Your task to perform on an android device: turn off location Image 0: 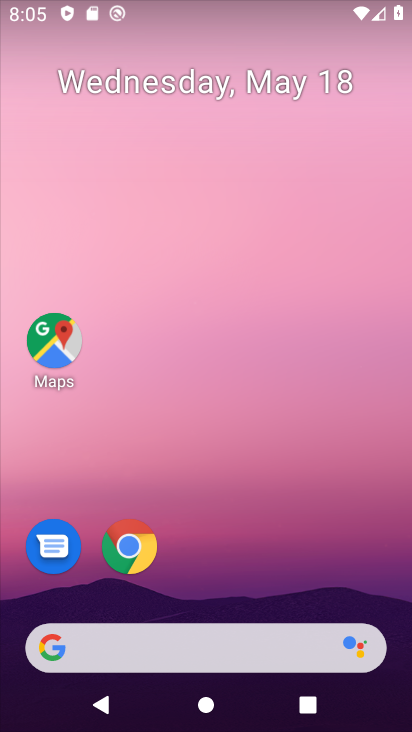
Step 0: drag from (221, 584) to (269, 9)
Your task to perform on an android device: turn off location Image 1: 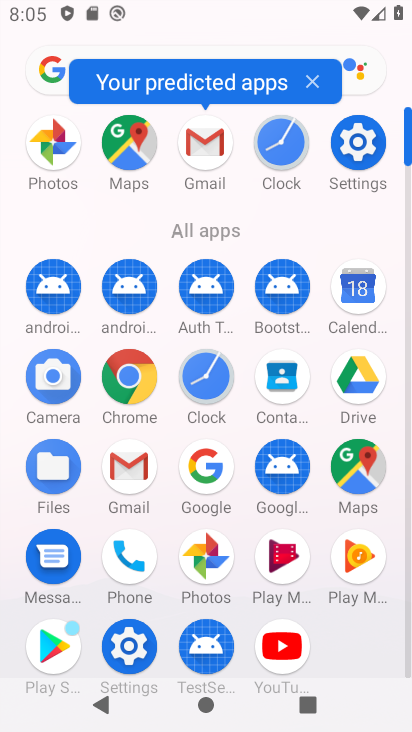
Step 1: click (360, 142)
Your task to perform on an android device: turn off location Image 2: 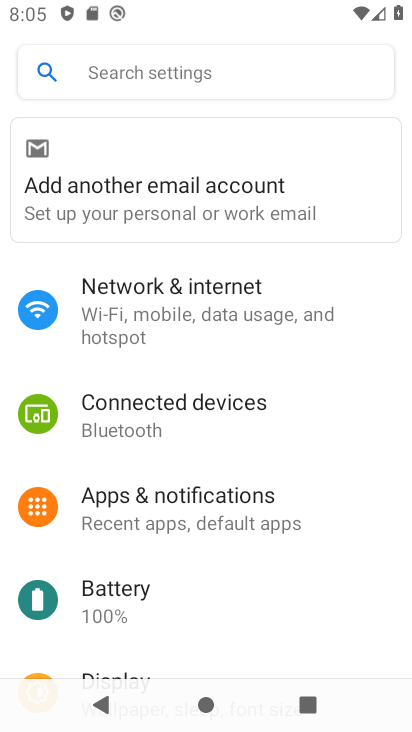
Step 2: drag from (273, 654) to (291, 104)
Your task to perform on an android device: turn off location Image 3: 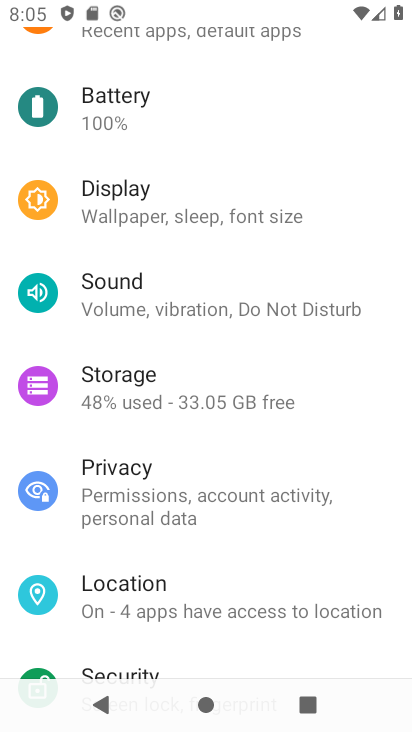
Step 3: drag from (299, 558) to (289, 277)
Your task to perform on an android device: turn off location Image 4: 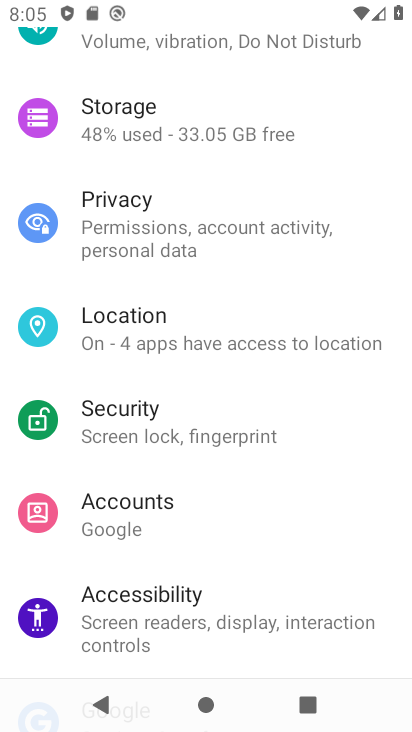
Step 4: click (298, 342)
Your task to perform on an android device: turn off location Image 5: 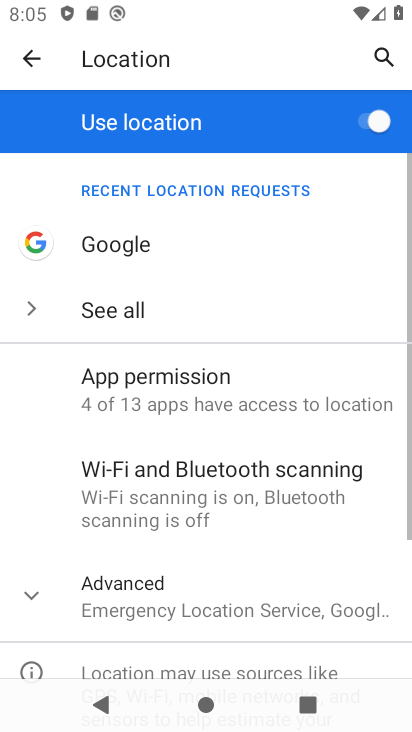
Step 5: click (363, 129)
Your task to perform on an android device: turn off location Image 6: 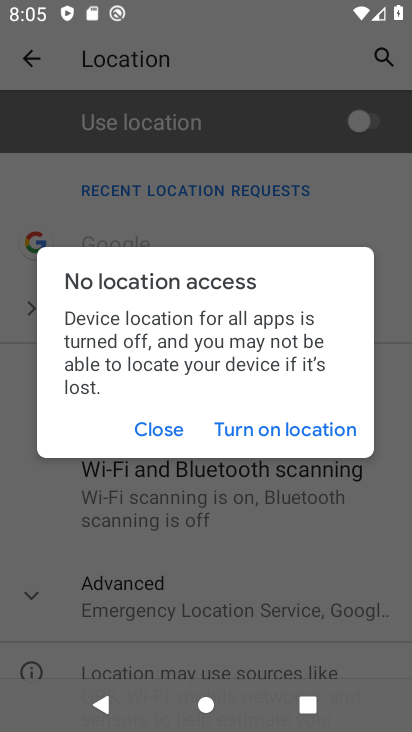
Step 6: task complete